Your task to perform on an android device: Open battery settings Image 0: 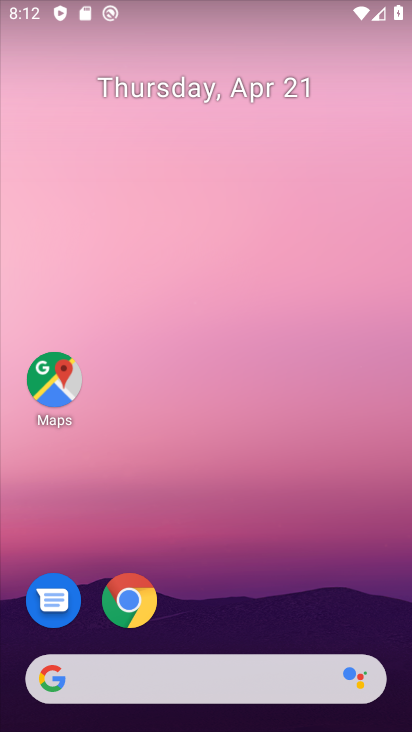
Step 0: drag from (16, 438) to (106, 200)
Your task to perform on an android device: Open battery settings Image 1: 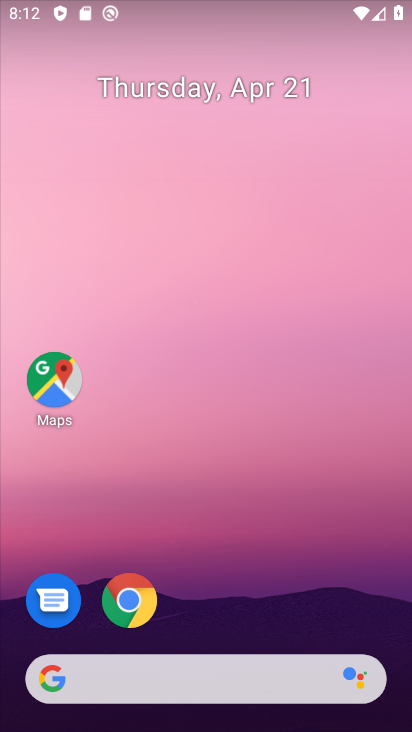
Step 1: drag from (65, 421) to (140, 182)
Your task to perform on an android device: Open battery settings Image 2: 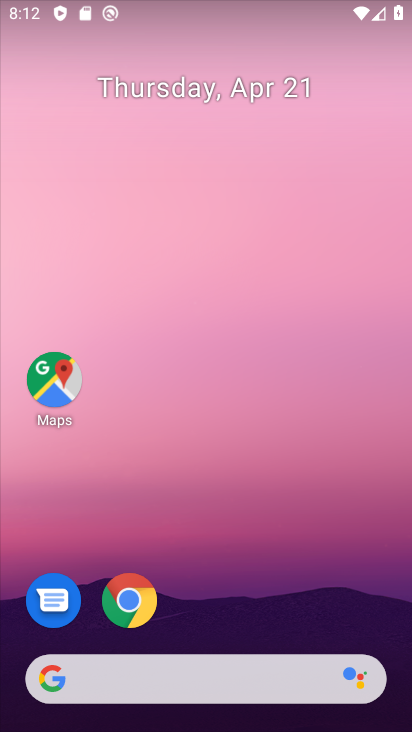
Step 2: drag from (95, 393) to (311, 137)
Your task to perform on an android device: Open battery settings Image 3: 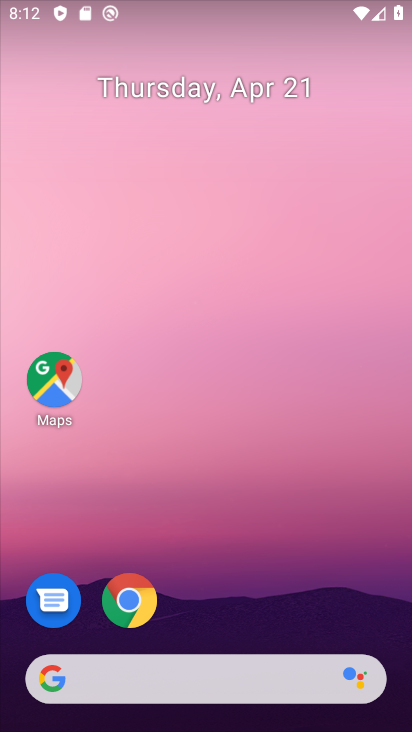
Step 3: drag from (135, 400) to (390, 326)
Your task to perform on an android device: Open battery settings Image 4: 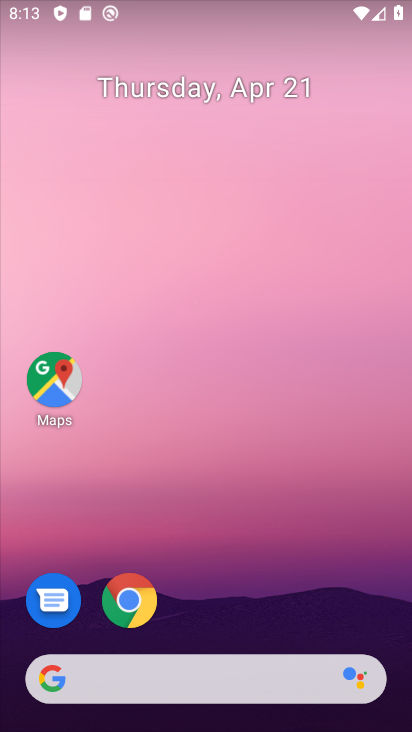
Step 4: drag from (51, 410) to (309, 5)
Your task to perform on an android device: Open battery settings Image 5: 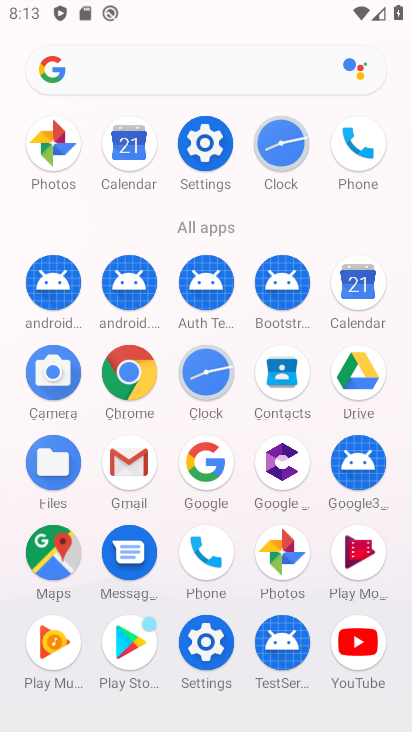
Step 5: click (206, 149)
Your task to perform on an android device: Open battery settings Image 6: 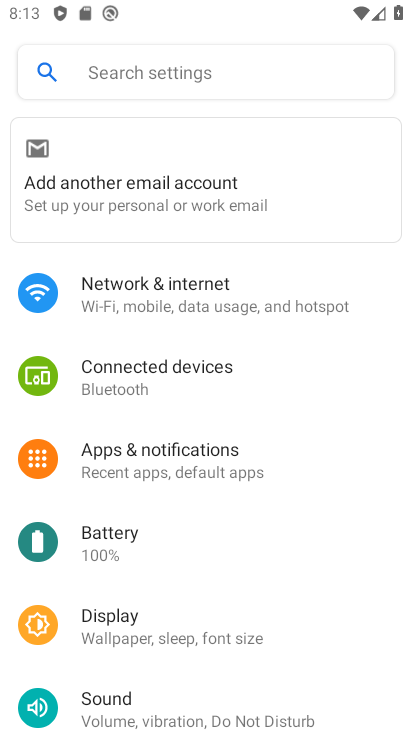
Step 6: click (149, 554)
Your task to perform on an android device: Open battery settings Image 7: 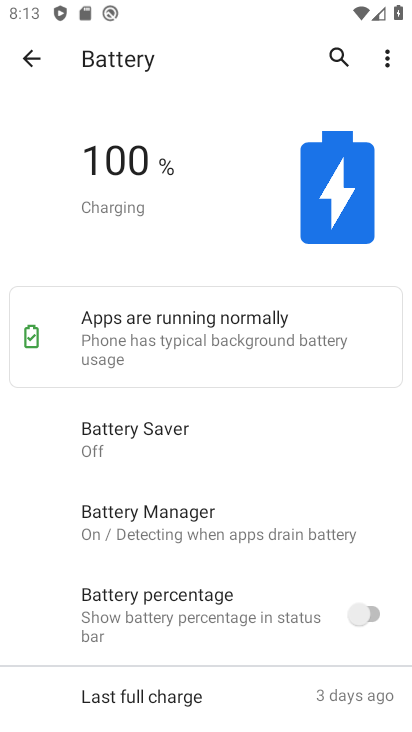
Step 7: task complete